Your task to perform on an android device: toggle javascript in the chrome app Image 0: 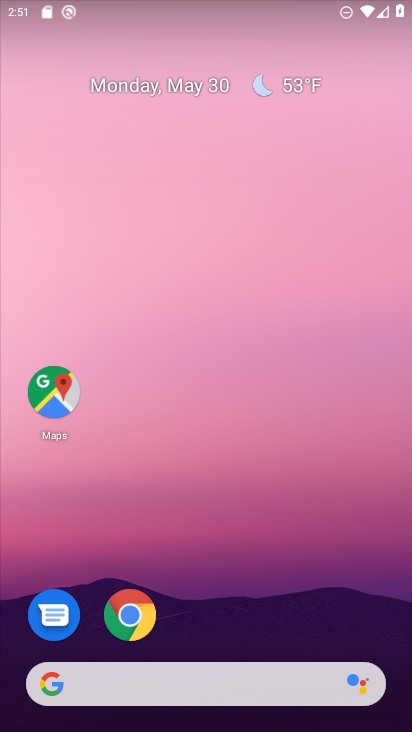
Step 0: click (297, 163)
Your task to perform on an android device: toggle javascript in the chrome app Image 1: 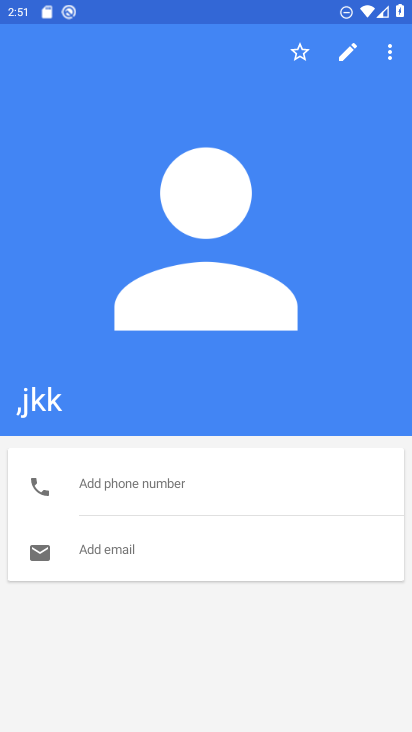
Step 1: press home button
Your task to perform on an android device: toggle javascript in the chrome app Image 2: 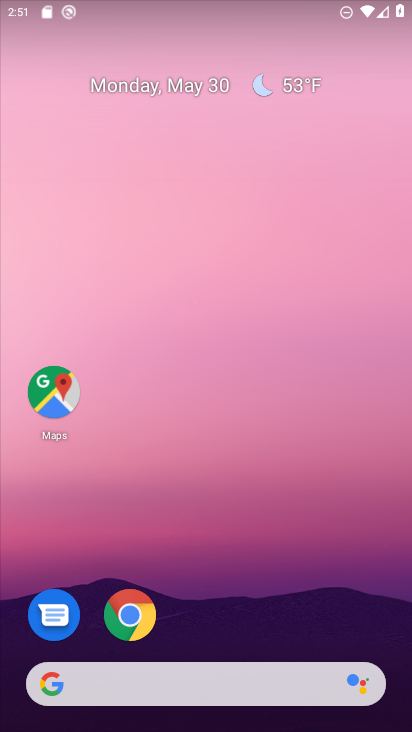
Step 2: click (113, 618)
Your task to perform on an android device: toggle javascript in the chrome app Image 3: 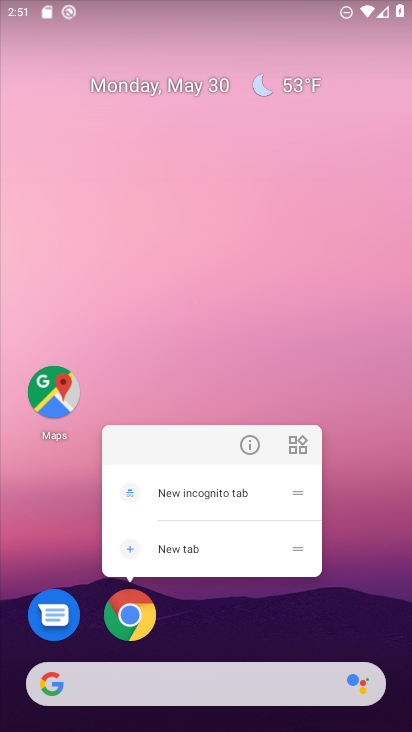
Step 3: click (122, 627)
Your task to perform on an android device: toggle javascript in the chrome app Image 4: 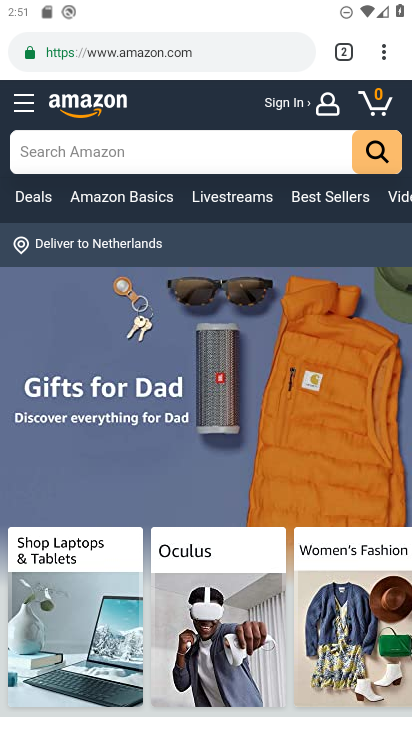
Step 4: drag from (390, 65) to (254, 630)
Your task to perform on an android device: toggle javascript in the chrome app Image 5: 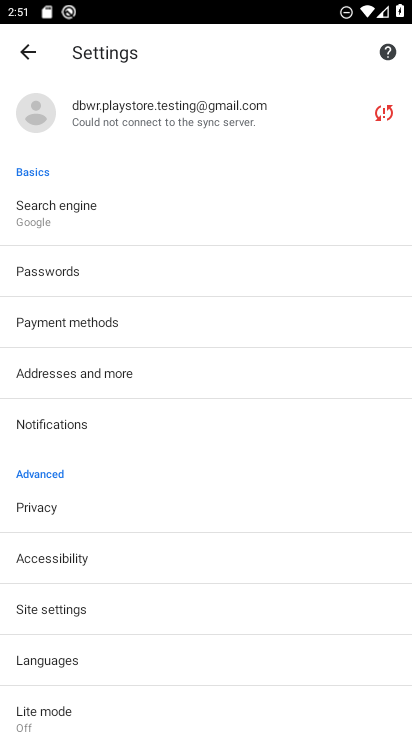
Step 5: click (131, 620)
Your task to perform on an android device: toggle javascript in the chrome app Image 6: 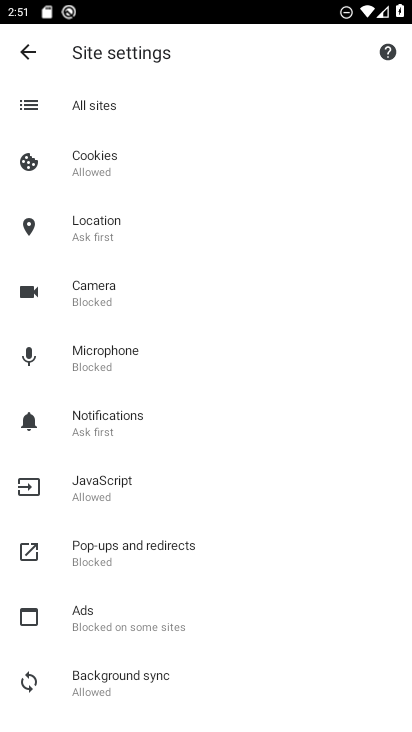
Step 6: click (190, 478)
Your task to perform on an android device: toggle javascript in the chrome app Image 7: 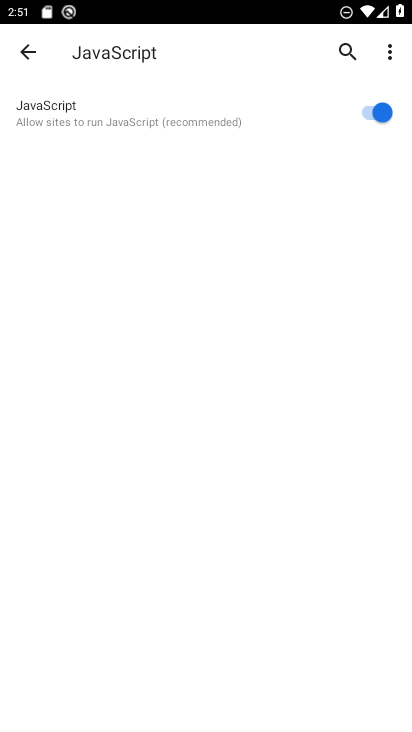
Step 7: click (356, 119)
Your task to perform on an android device: toggle javascript in the chrome app Image 8: 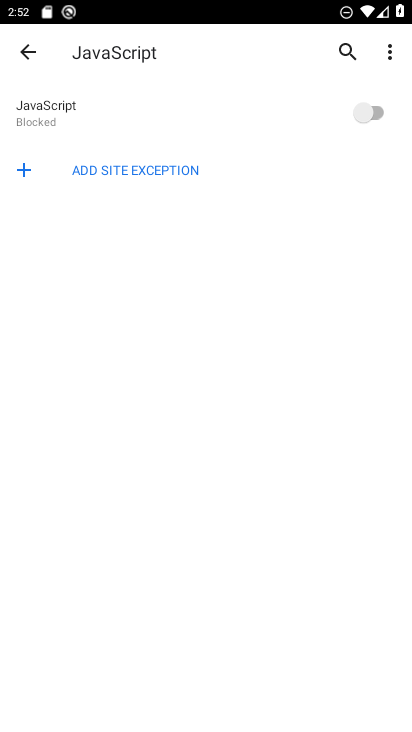
Step 8: task complete